Your task to perform on an android device: Open the phone app and click the voicemail tab. Image 0: 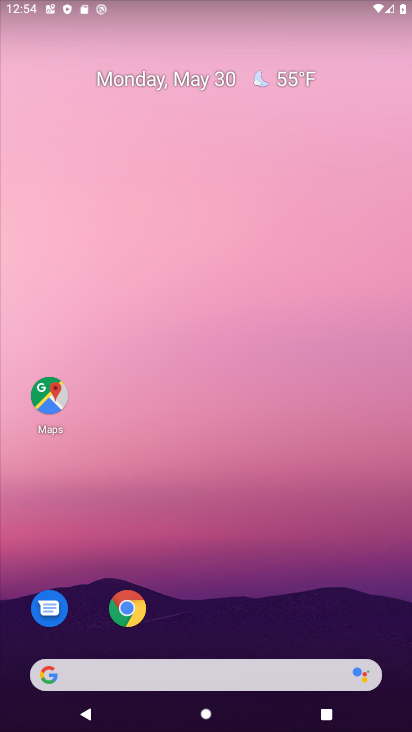
Step 0: drag from (190, 640) to (338, 61)
Your task to perform on an android device: Open the phone app and click the voicemail tab. Image 1: 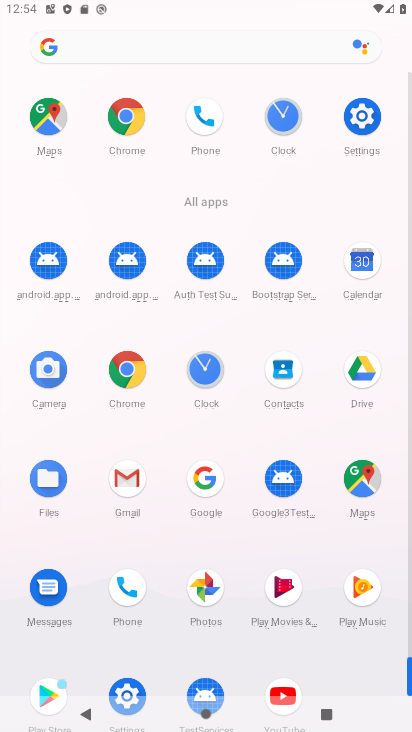
Step 1: click (134, 596)
Your task to perform on an android device: Open the phone app and click the voicemail tab. Image 2: 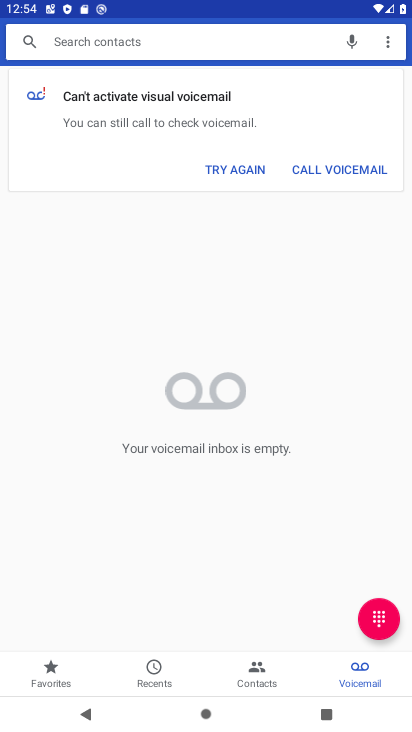
Step 2: click (359, 679)
Your task to perform on an android device: Open the phone app and click the voicemail tab. Image 3: 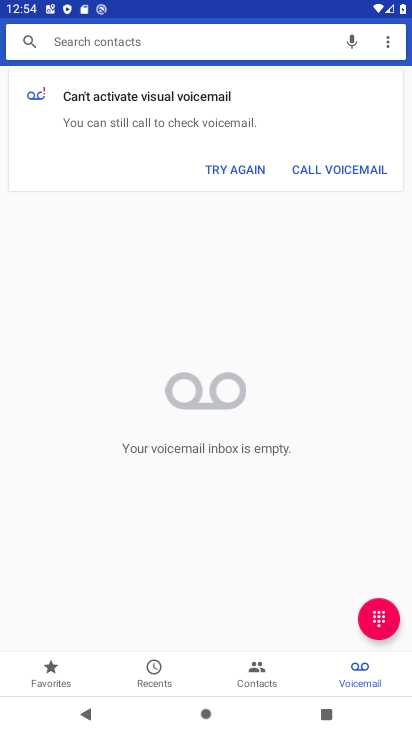
Step 3: task complete